Your task to perform on an android device: Go to location settings Image 0: 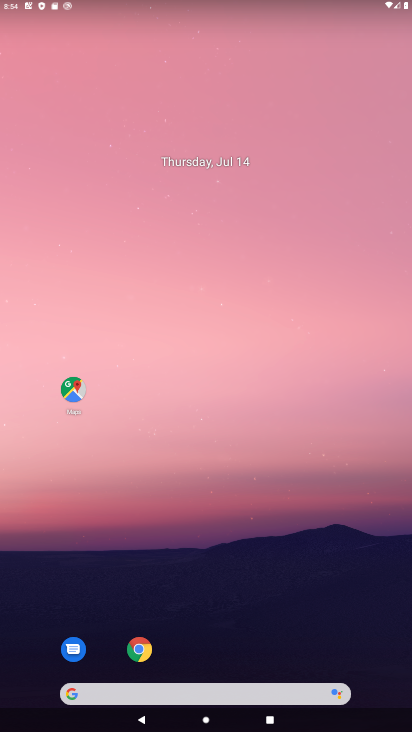
Step 0: click (188, 691)
Your task to perform on an android device: Go to location settings Image 1: 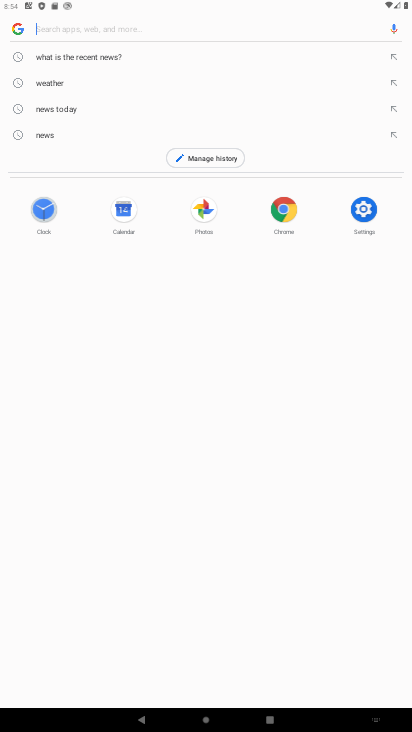
Step 1: press home button
Your task to perform on an android device: Go to location settings Image 2: 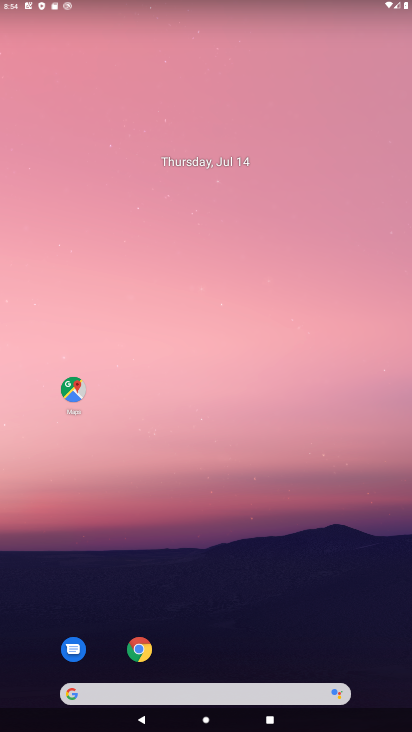
Step 2: drag from (176, 723) to (108, 132)
Your task to perform on an android device: Go to location settings Image 3: 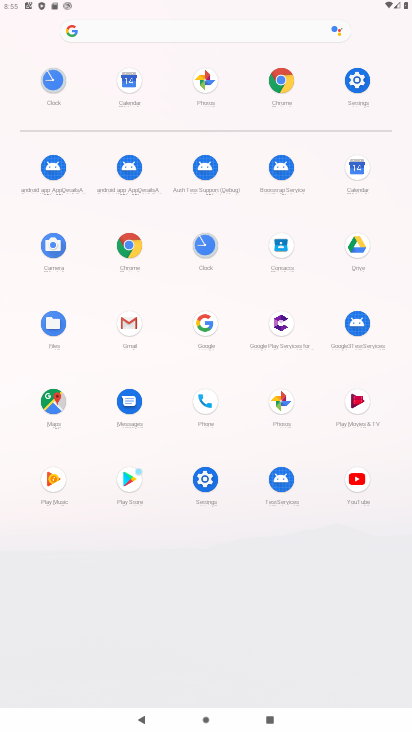
Step 3: click (350, 74)
Your task to perform on an android device: Go to location settings Image 4: 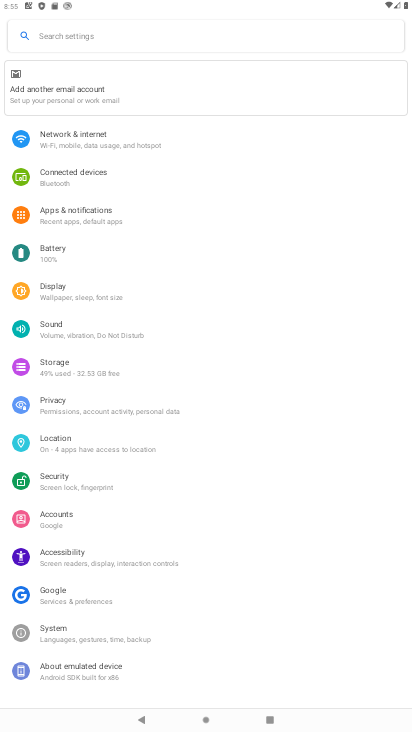
Step 4: click (108, 437)
Your task to perform on an android device: Go to location settings Image 5: 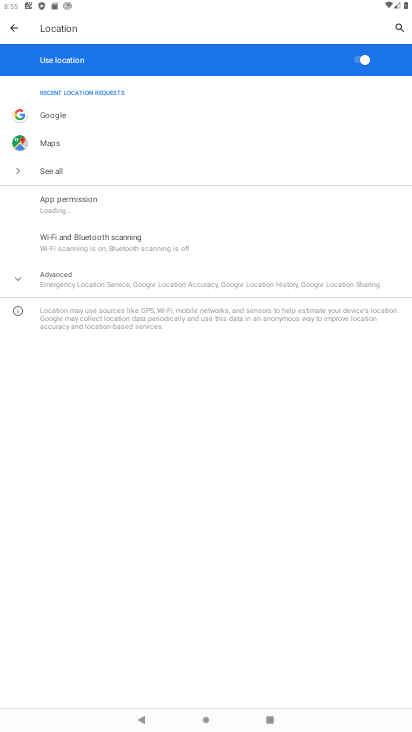
Step 5: task complete